Your task to perform on an android device: turn on improve location accuracy Image 0: 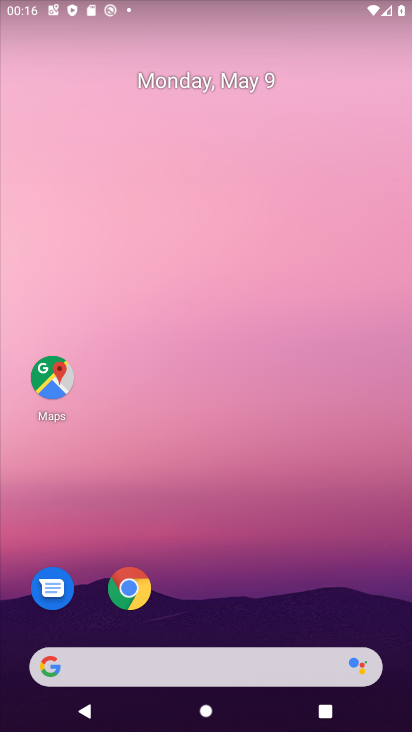
Step 0: drag from (233, 532) to (189, 206)
Your task to perform on an android device: turn on improve location accuracy Image 1: 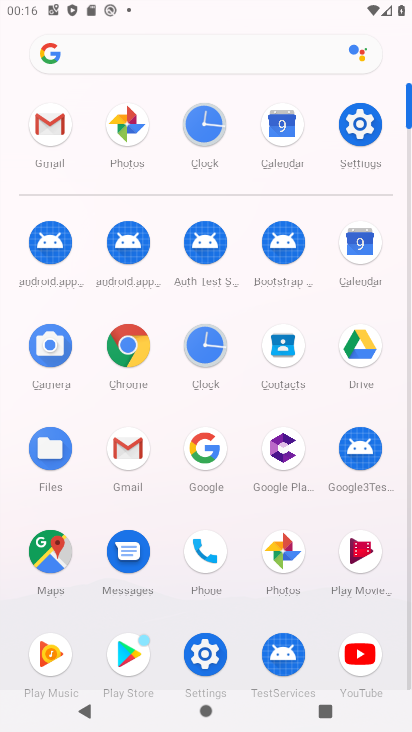
Step 1: drag from (257, 542) to (204, 267)
Your task to perform on an android device: turn on improve location accuracy Image 2: 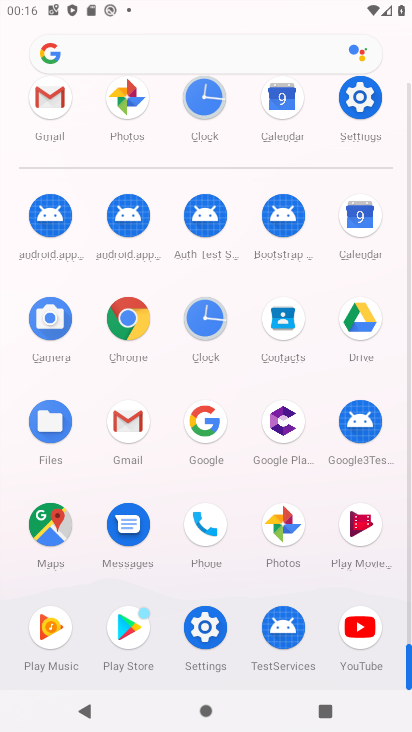
Step 2: click (357, 95)
Your task to perform on an android device: turn on improve location accuracy Image 3: 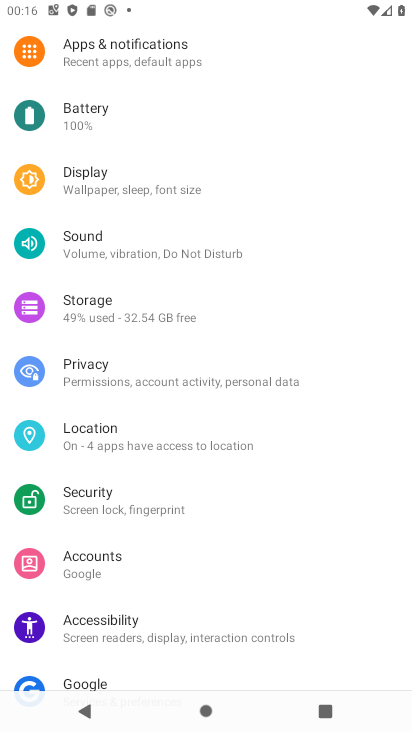
Step 3: click (84, 429)
Your task to perform on an android device: turn on improve location accuracy Image 4: 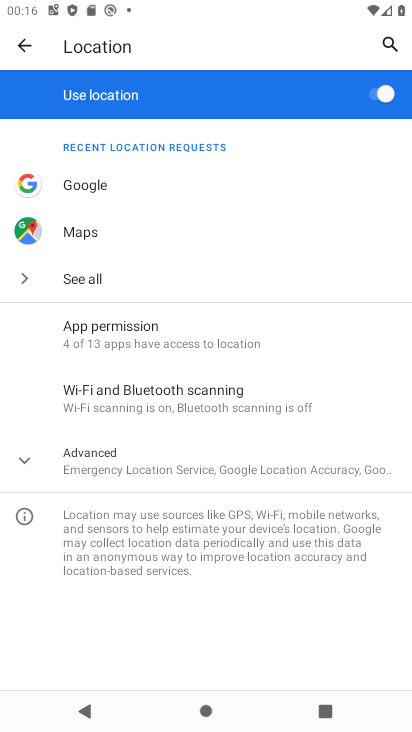
Step 4: click (62, 459)
Your task to perform on an android device: turn on improve location accuracy Image 5: 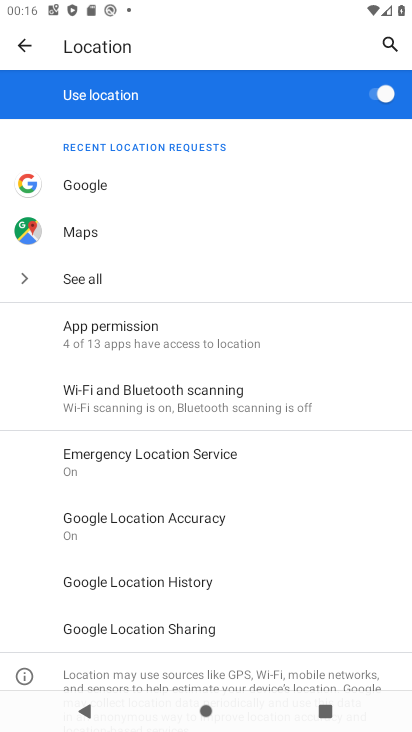
Step 5: click (155, 518)
Your task to perform on an android device: turn on improve location accuracy Image 6: 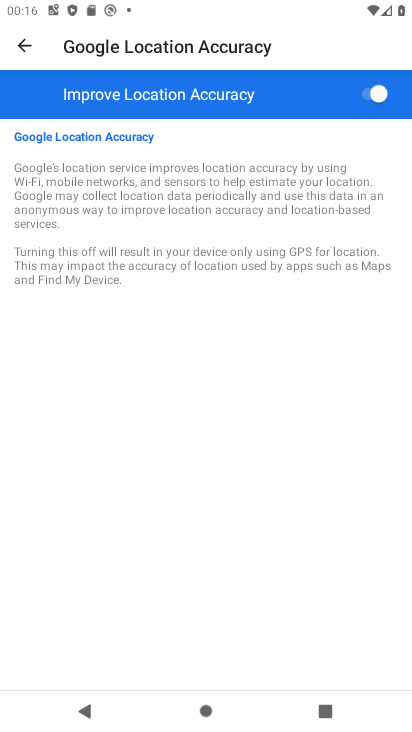
Step 6: task complete